Your task to perform on an android device: Open calendar and show me the first week of next month Image 0: 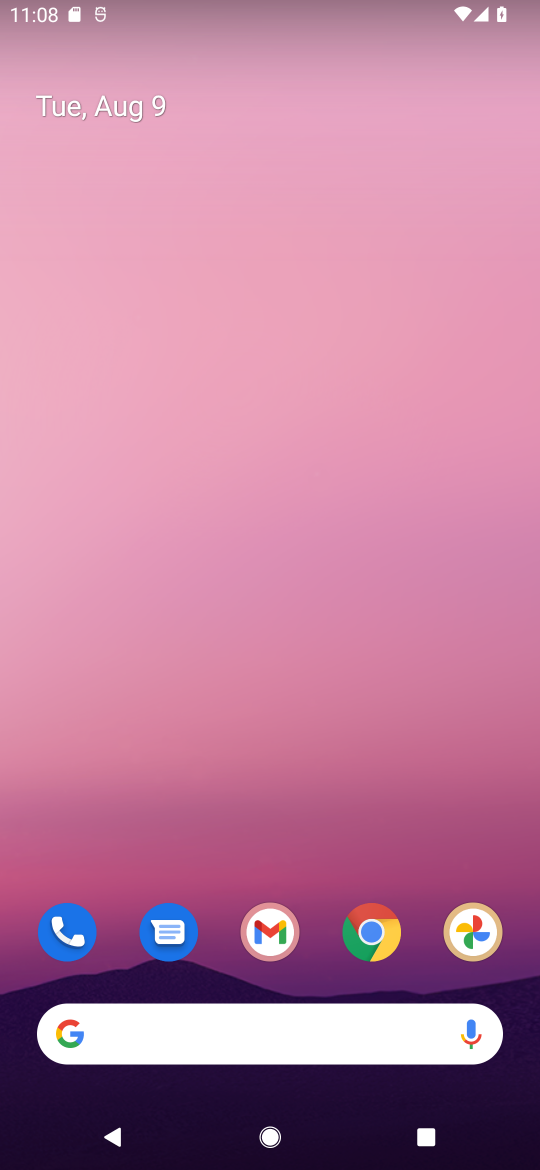
Step 0: drag from (255, 961) to (277, 178)
Your task to perform on an android device: Open calendar and show me the first week of next month Image 1: 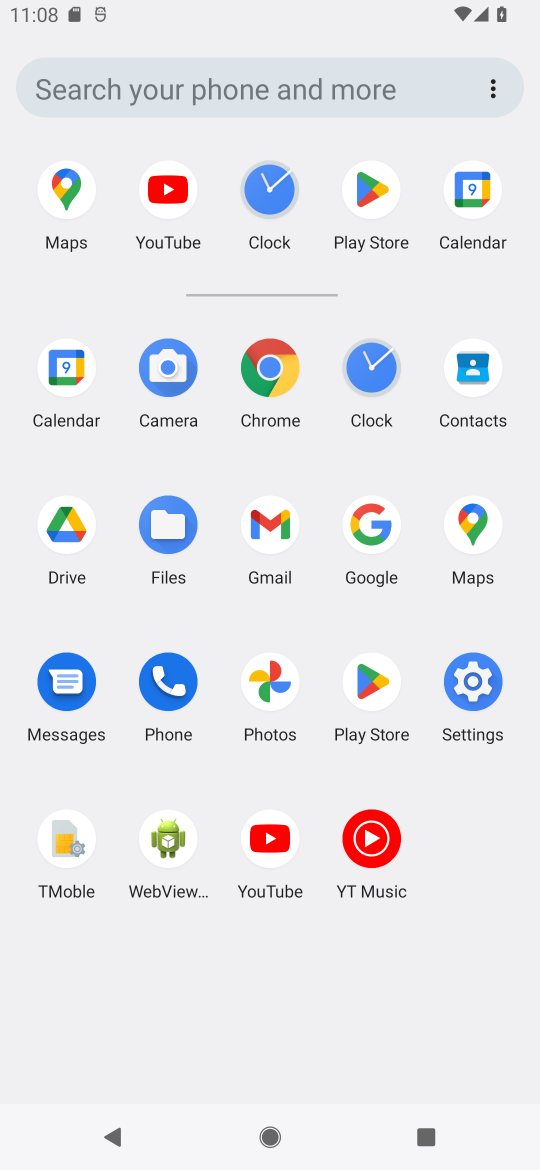
Step 1: click (54, 380)
Your task to perform on an android device: Open calendar and show me the first week of next month Image 2: 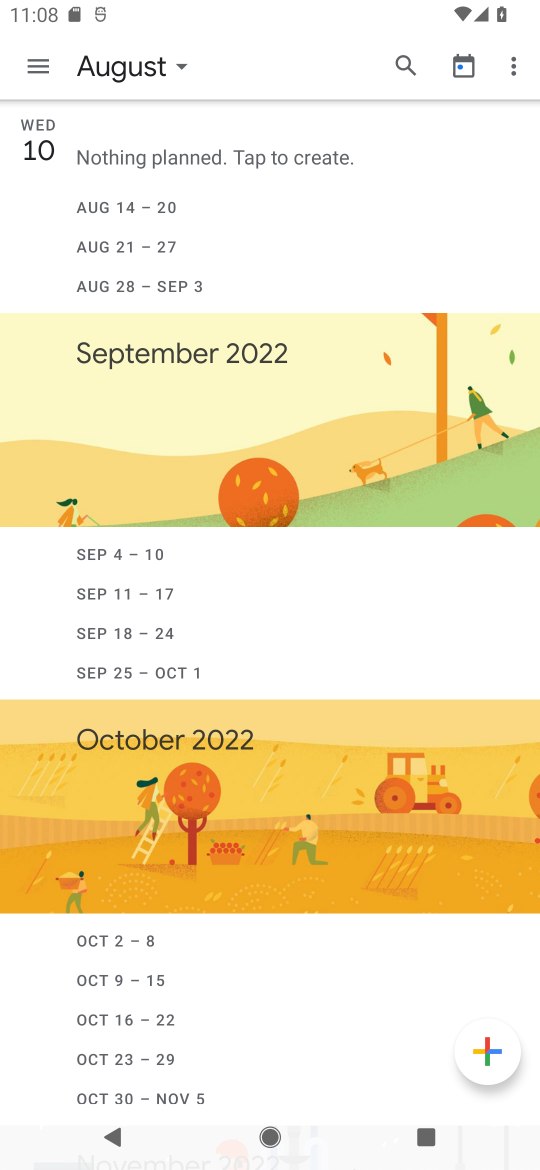
Step 2: click (25, 68)
Your task to perform on an android device: Open calendar and show me the first week of next month Image 3: 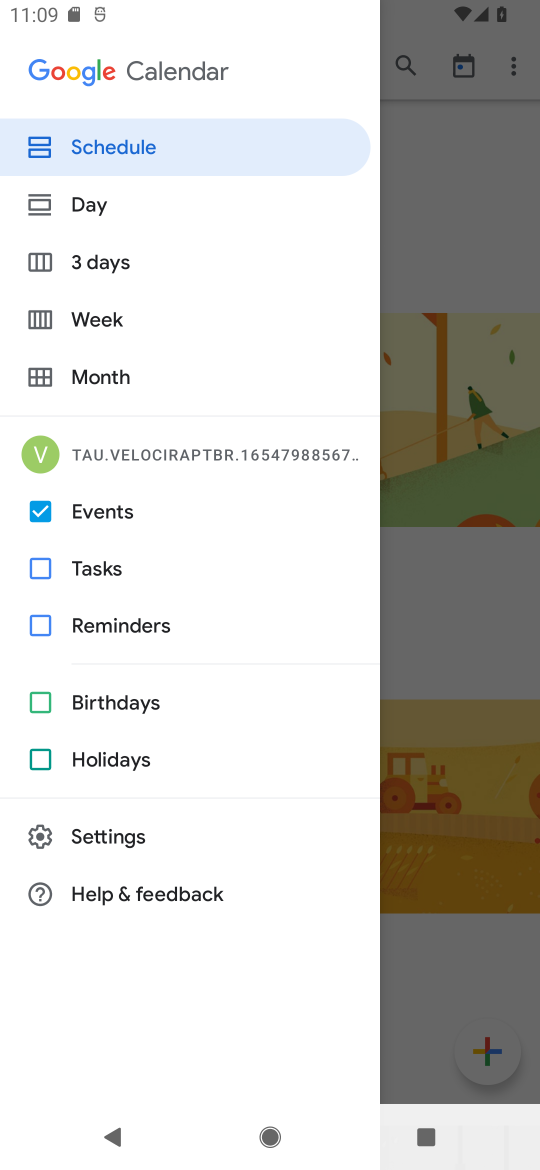
Step 3: click (110, 322)
Your task to perform on an android device: Open calendar and show me the first week of next month Image 4: 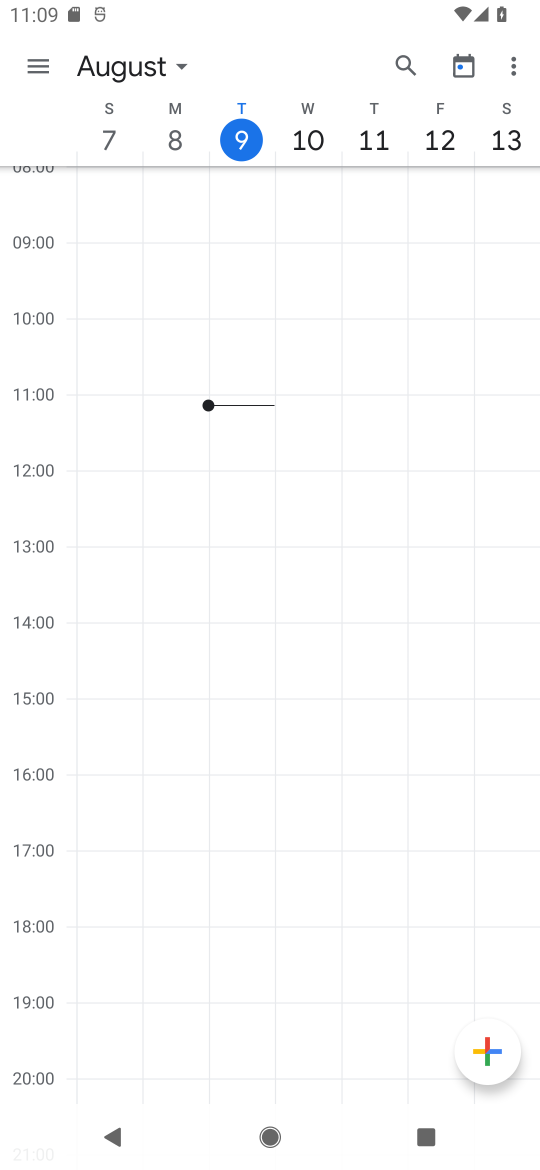
Step 4: click (146, 58)
Your task to perform on an android device: Open calendar and show me the first week of next month Image 5: 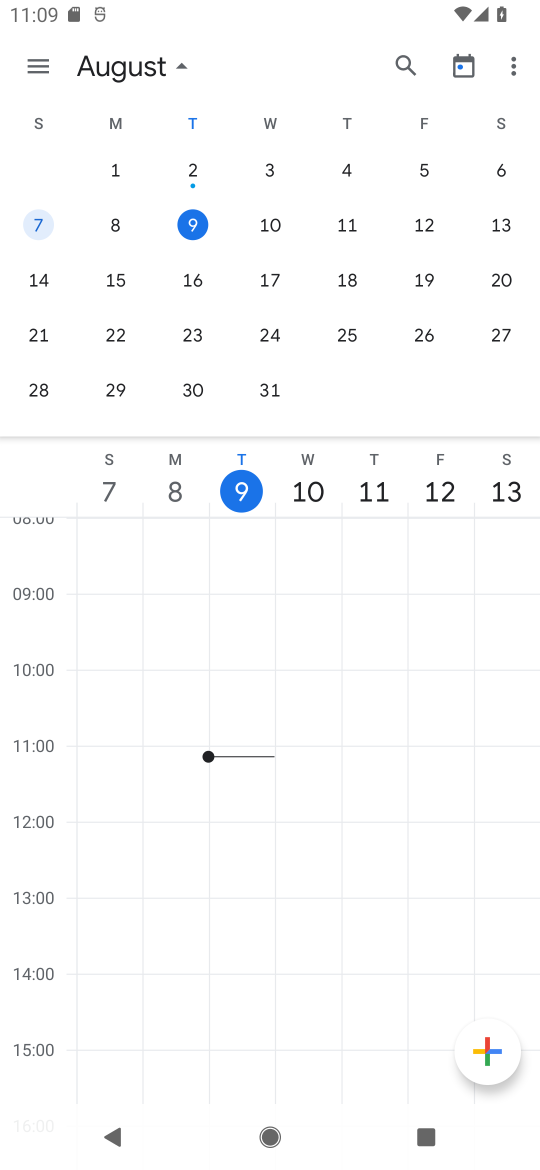
Step 5: drag from (486, 343) to (0, 300)
Your task to perform on an android device: Open calendar and show me the first week of next month Image 6: 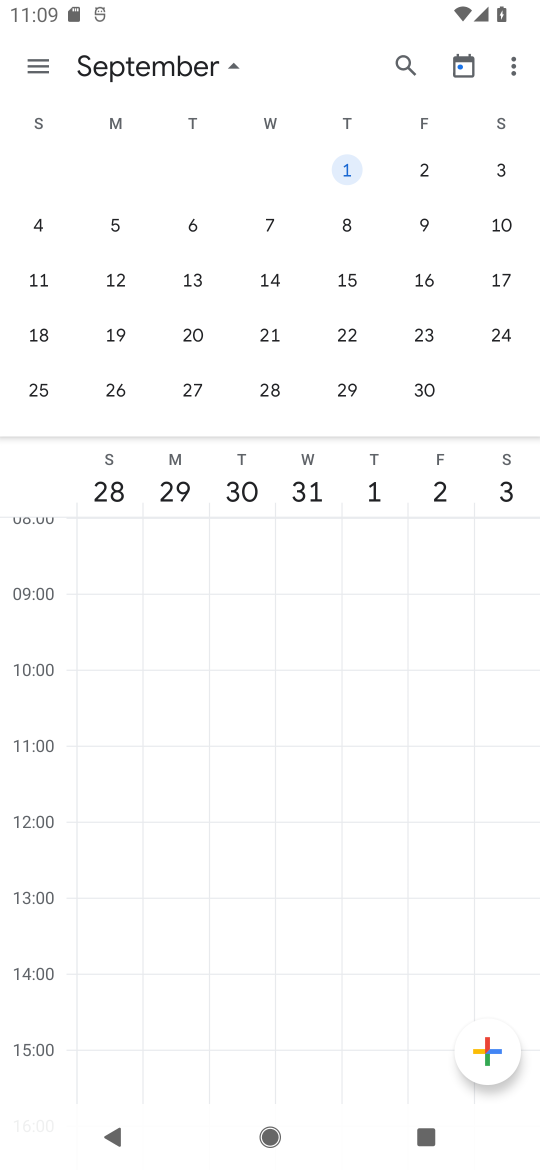
Step 6: click (186, 217)
Your task to perform on an android device: Open calendar and show me the first week of next month Image 7: 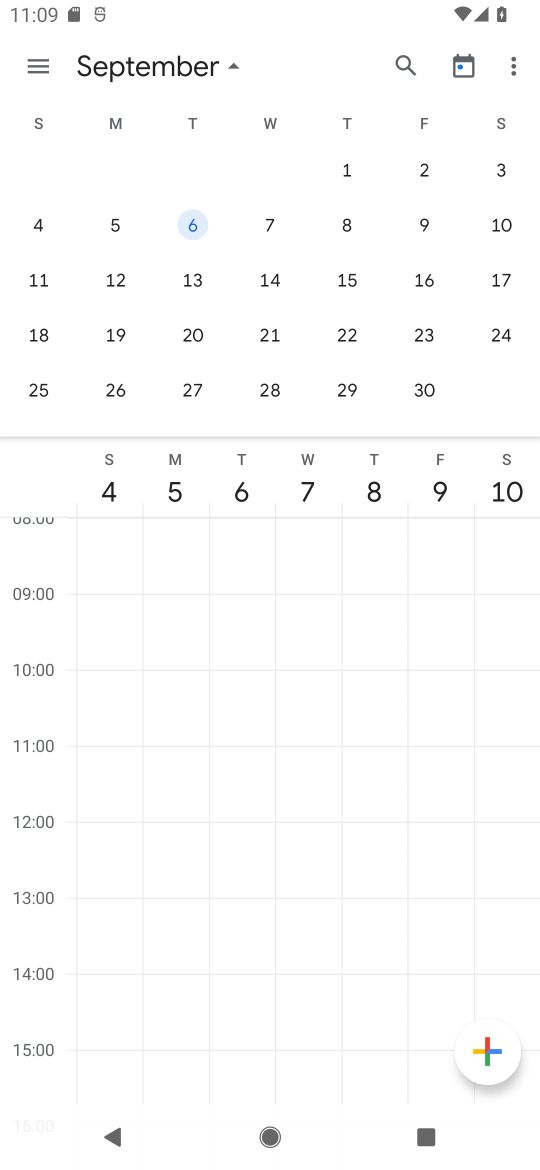
Step 7: task complete